Your task to perform on an android device: What is the recent news? Image 0: 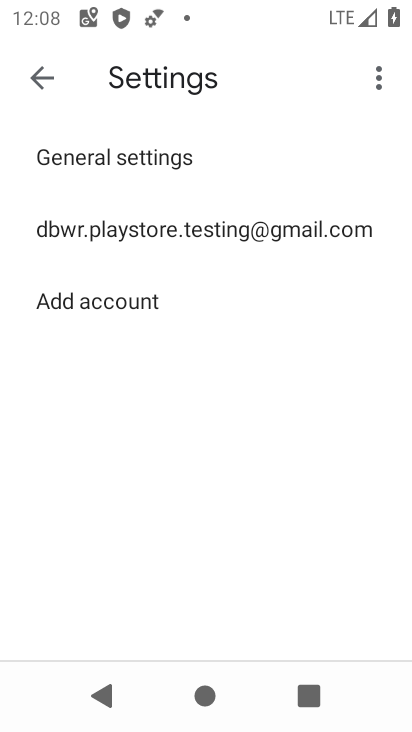
Step 0: press home button
Your task to perform on an android device: What is the recent news? Image 1: 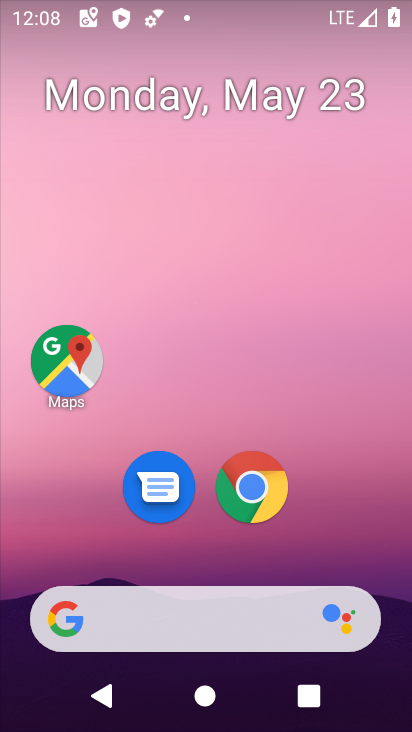
Step 1: click (267, 651)
Your task to perform on an android device: What is the recent news? Image 2: 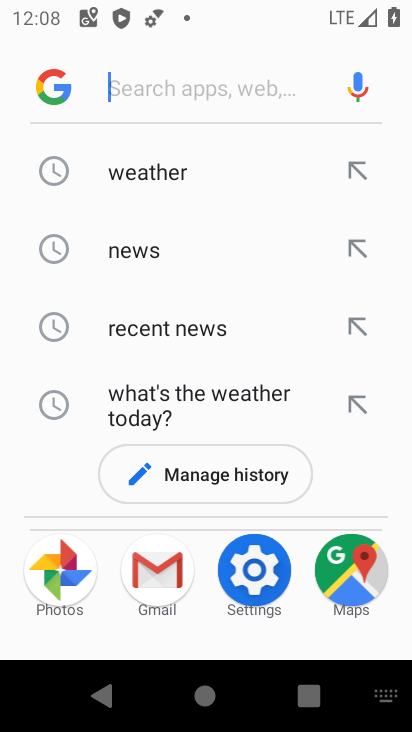
Step 2: click (94, 319)
Your task to perform on an android device: What is the recent news? Image 3: 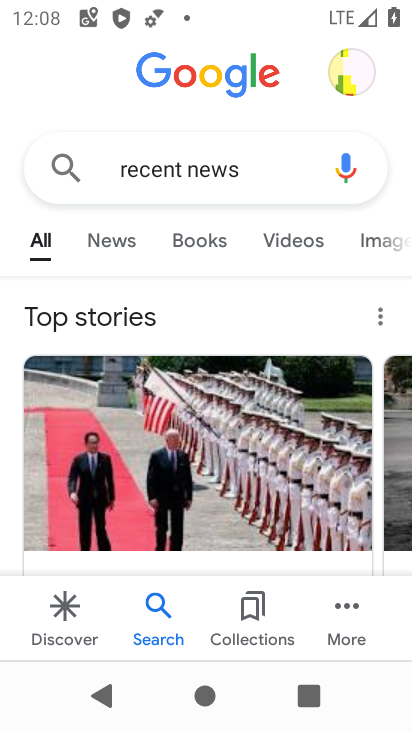
Step 3: click (108, 227)
Your task to perform on an android device: What is the recent news? Image 4: 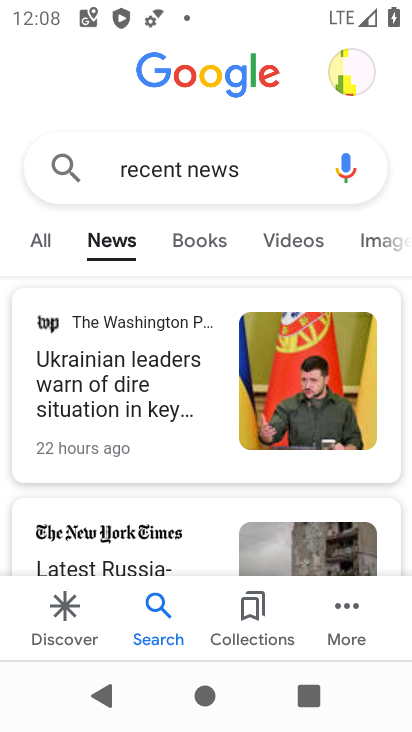
Step 4: press back button
Your task to perform on an android device: What is the recent news? Image 5: 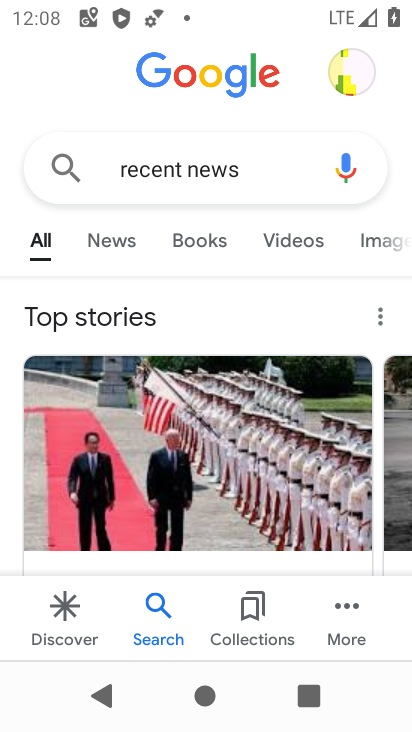
Step 5: drag from (276, 450) to (328, 133)
Your task to perform on an android device: What is the recent news? Image 6: 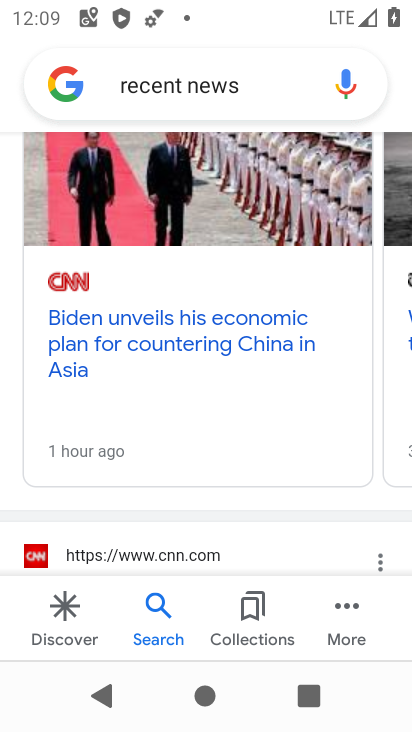
Step 6: click (239, 330)
Your task to perform on an android device: What is the recent news? Image 7: 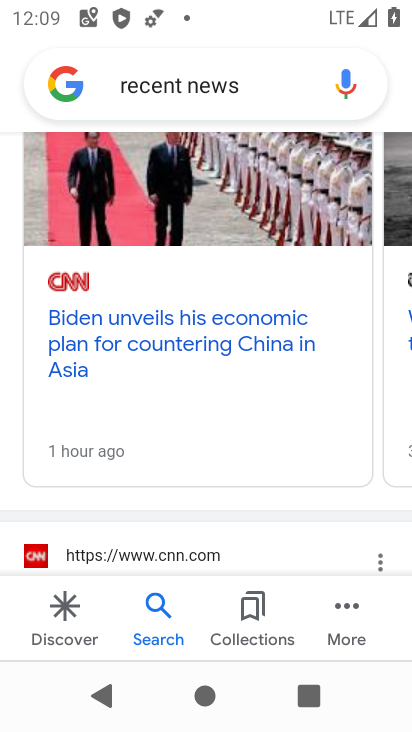
Step 7: task complete